Your task to perform on an android device: Open Google Maps and go to "Timeline" Image 0: 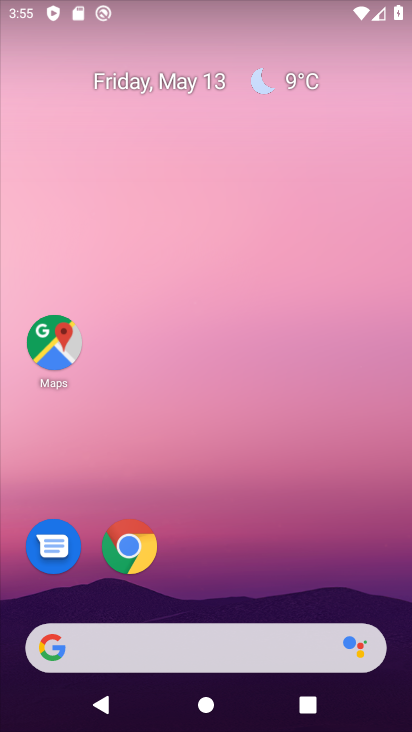
Step 0: drag from (217, 585) to (173, 37)
Your task to perform on an android device: Open Google Maps and go to "Timeline" Image 1: 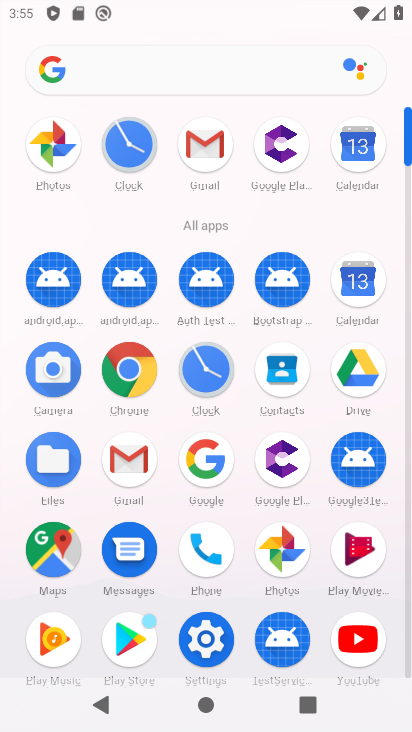
Step 1: click (42, 542)
Your task to perform on an android device: Open Google Maps and go to "Timeline" Image 2: 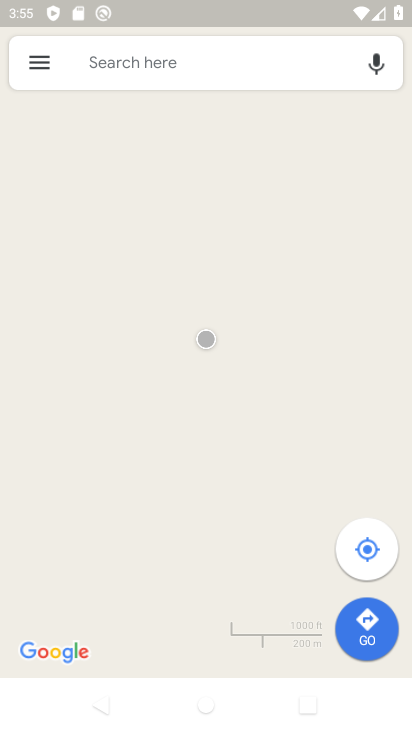
Step 2: click (44, 57)
Your task to perform on an android device: Open Google Maps and go to "Timeline" Image 3: 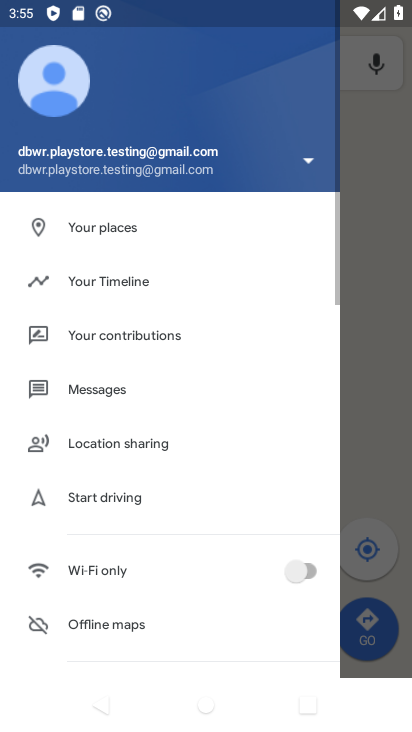
Step 3: click (123, 263)
Your task to perform on an android device: Open Google Maps and go to "Timeline" Image 4: 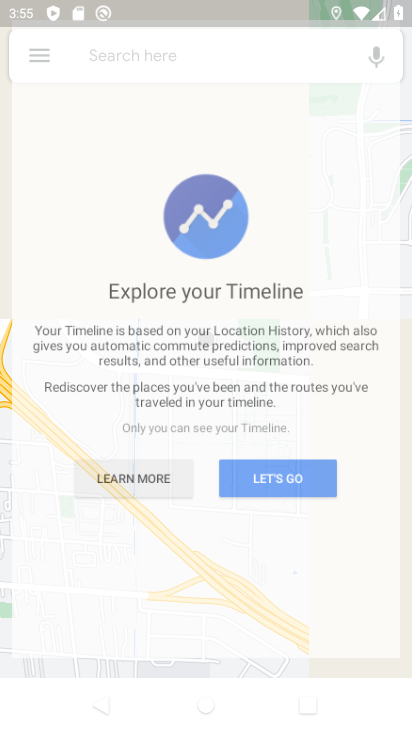
Step 4: click (289, 474)
Your task to perform on an android device: Open Google Maps and go to "Timeline" Image 5: 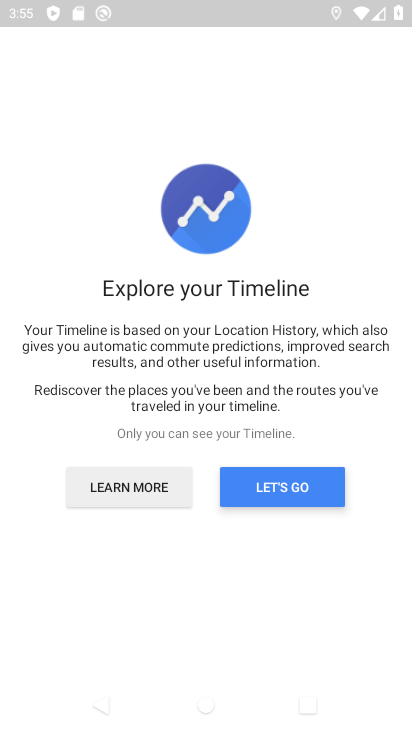
Step 5: click (316, 481)
Your task to perform on an android device: Open Google Maps and go to "Timeline" Image 6: 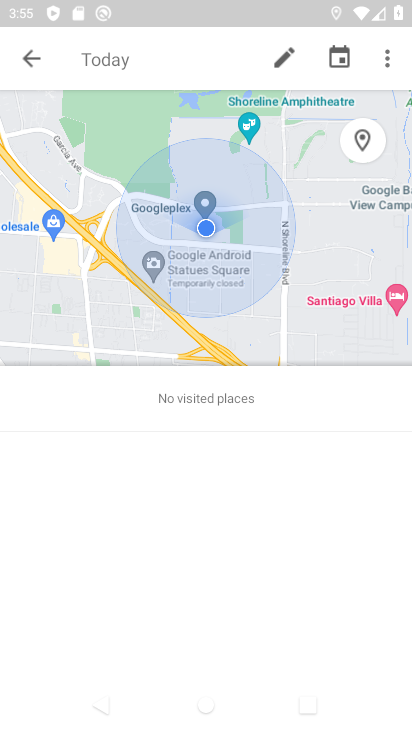
Step 6: task complete